Your task to perform on an android device: Open display settings Image 0: 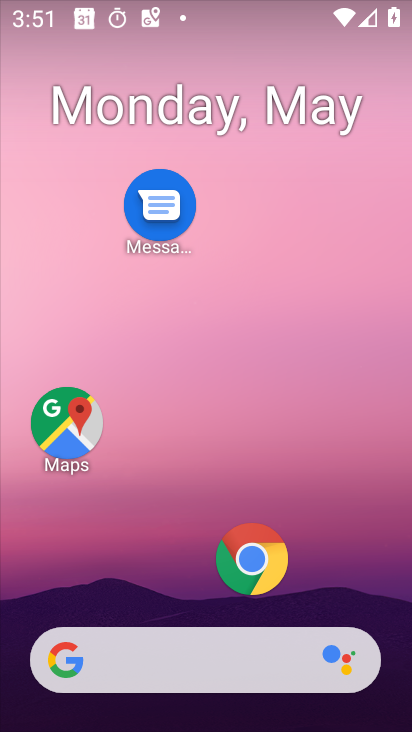
Step 0: drag from (199, 576) to (192, 194)
Your task to perform on an android device: Open display settings Image 1: 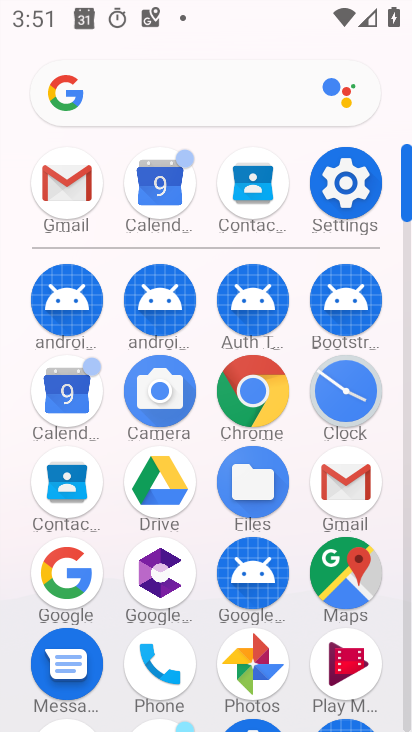
Step 1: click (346, 190)
Your task to perform on an android device: Open display settings Image 2: 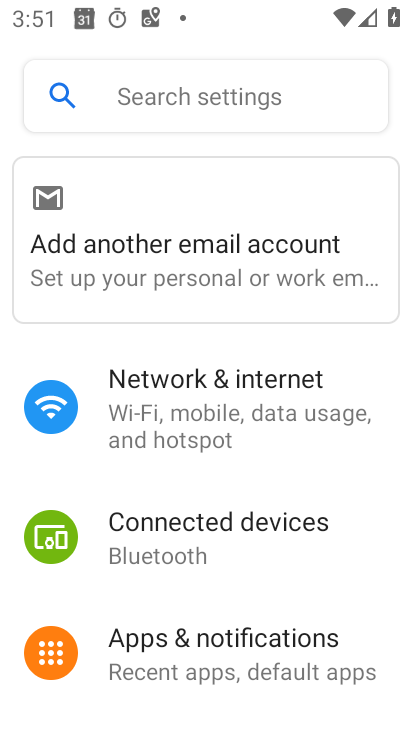
Step 2: drag from (231, 590) to (214, 304)
Your task to perform on an android device: Open display settings Image 3: 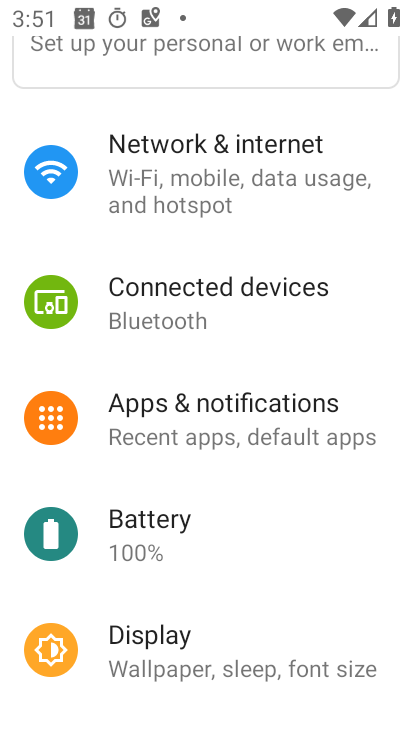
Step 3: click (176, 676)
Your task to perform on an android device: Open display settings Image 4: 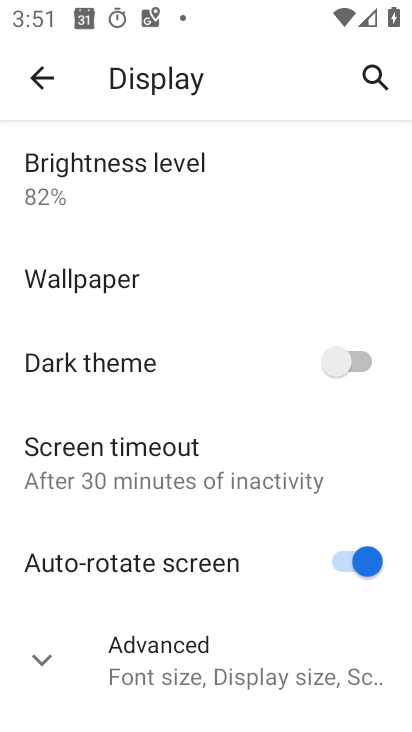
Step 4: task complete